Your task to perform on an android device: Open Wikipedia Image 0: 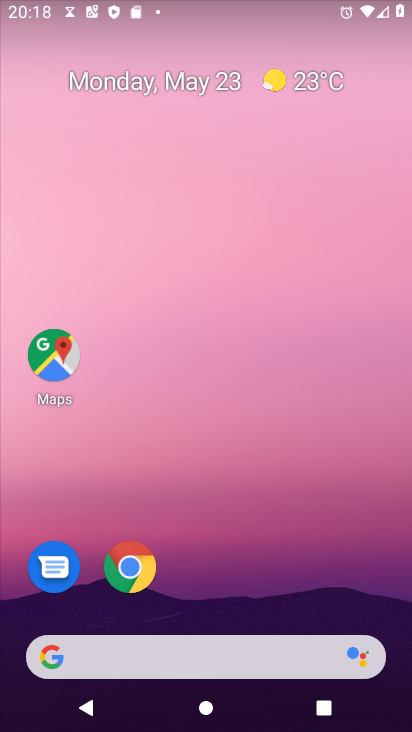
Step 0: click (119, 566)
Your task to perform on an android device: Open Wikipedia Image 1: 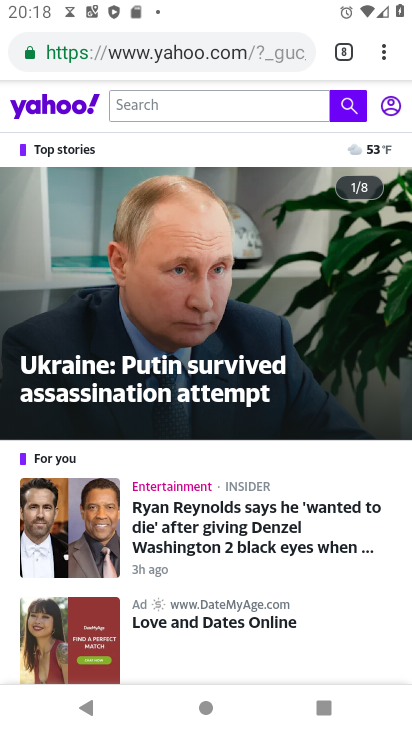
Step 1: click (344, 52)
Your task to perform on an android device: Open Wikipedia Image 2: 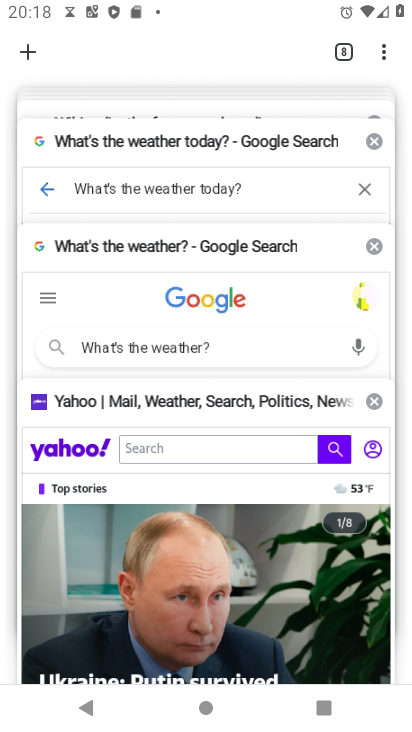
Step 2: drag from (195, 184) to (225, 588)
Your task to perform on an android device: Open Wikipedia Image 3: 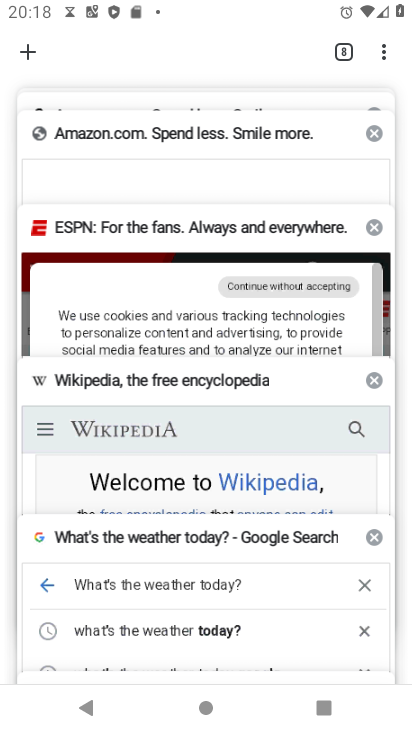
Step 3: click (163, 467)
Your task to perform on an android device: Open Wikipedia Image 4: 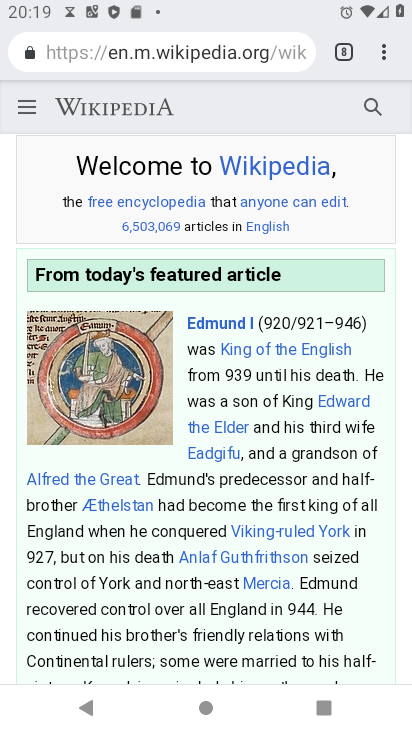
Step 4: task complete